Your task to perform on an android device: Go to wifi settings Image 0: 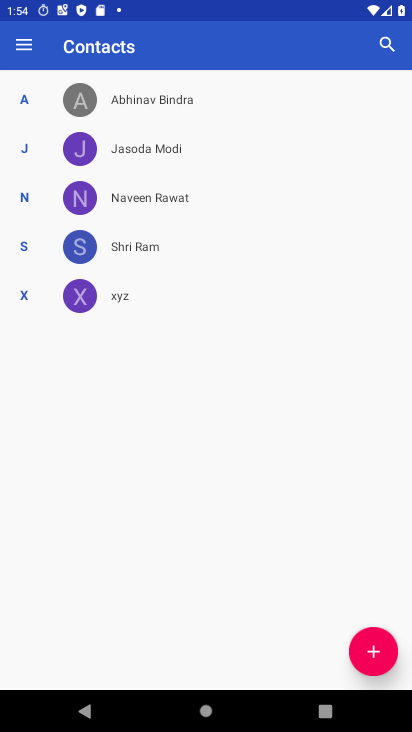
Step 0: press home button
Your task to perform on an android device: Go to wifi settings Image 1: 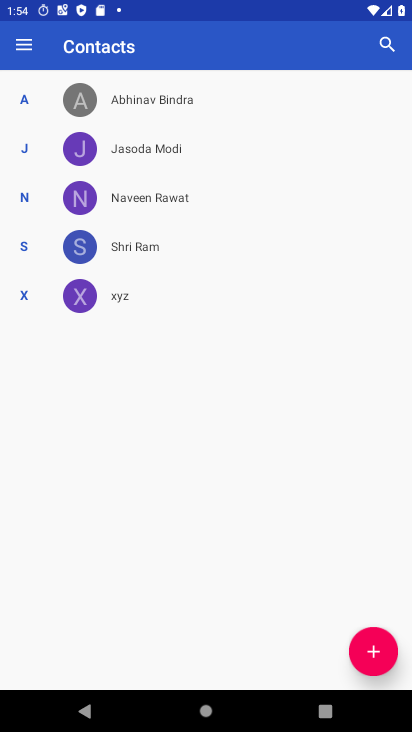
Step 1: press home button
Your task to perform on an android device: Go to wifi settings Image 2: 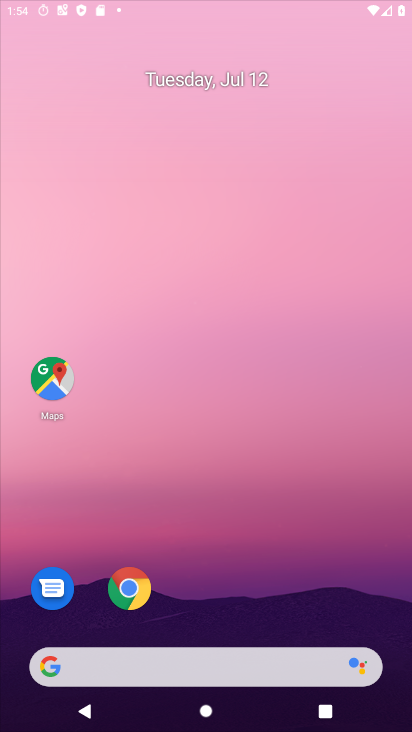
Step 2: drag from (172, 384) to (187, 134)
Your task to perform on an android device: Go to wifi settings Image 3: 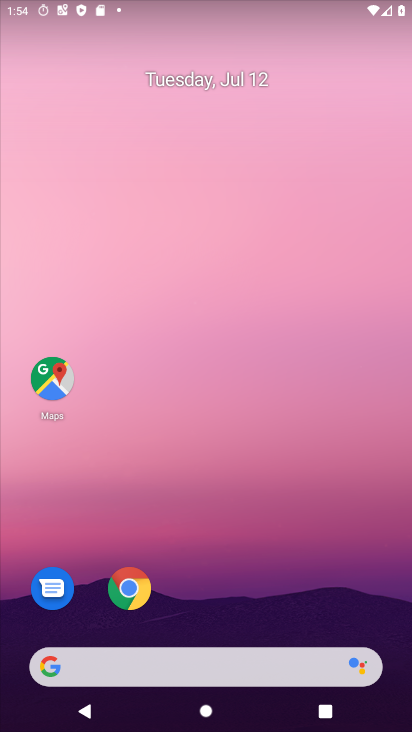
Step 3: drag from (208, 603) to (248, 0)
Your task to perform on an android device: Go to wifi settings Image 4: 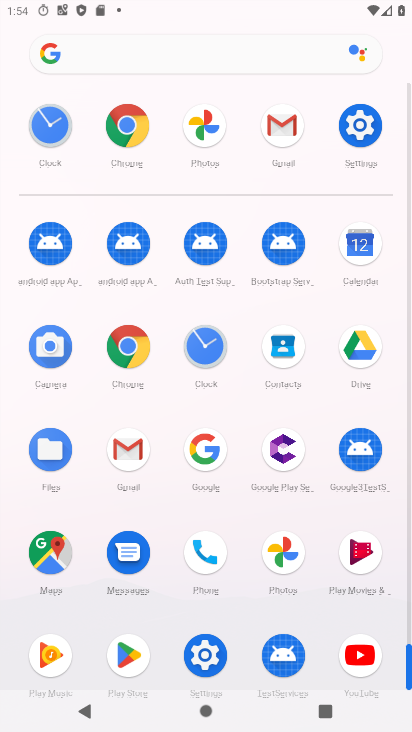
Step 4: click (362, 119)
Your task to perform on an android device: Go to wifi settings Image 5: 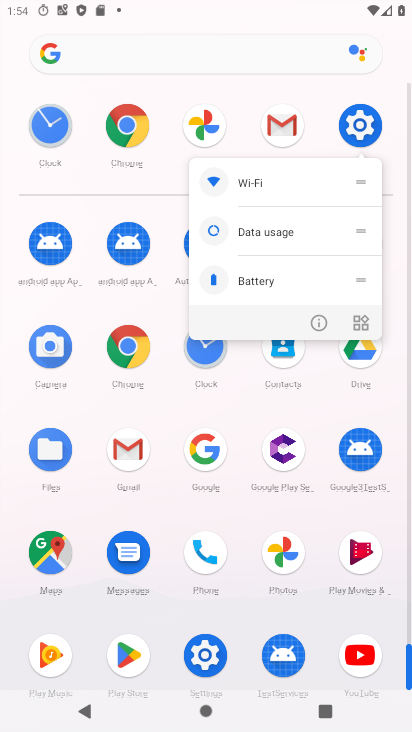
Step 5: click (252, 189)
Your task to perform on an android device: Go to wifi settings Image 6: 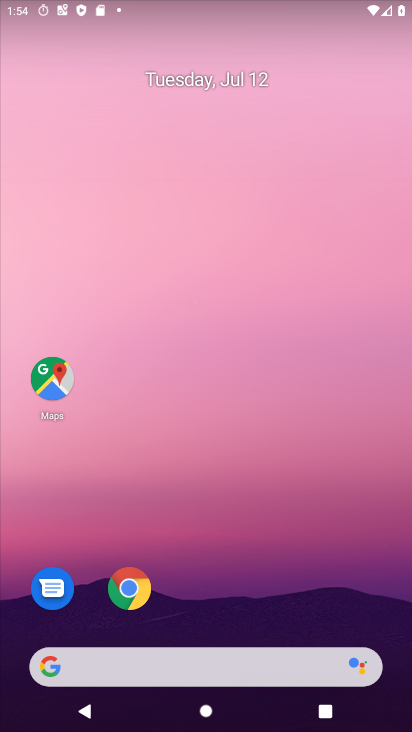
Step 6: drag from (189, 630) to (141, 0)
Your task to perform on an android device: Go to wifi settings Image 7: 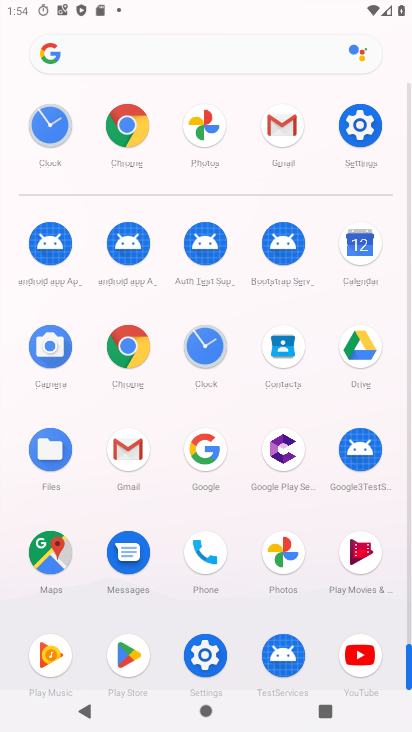
Step 7: click (355, 122)
Your task to perform on an android device: Go to wifi settings Image 8: 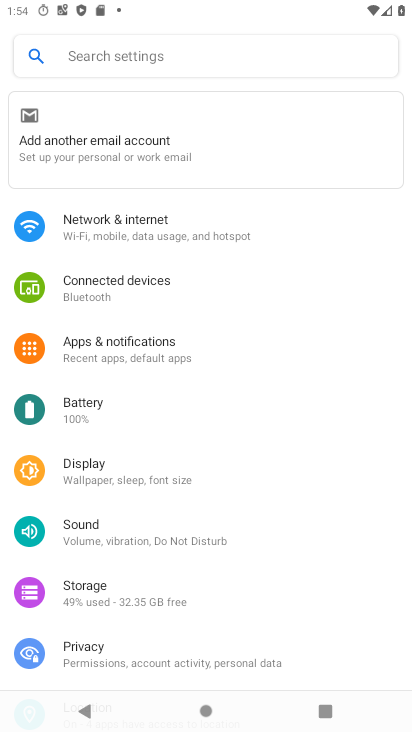
Step 8: click (142, 54)
Your task to perform on an android device: Go to wifi settings Image 9: 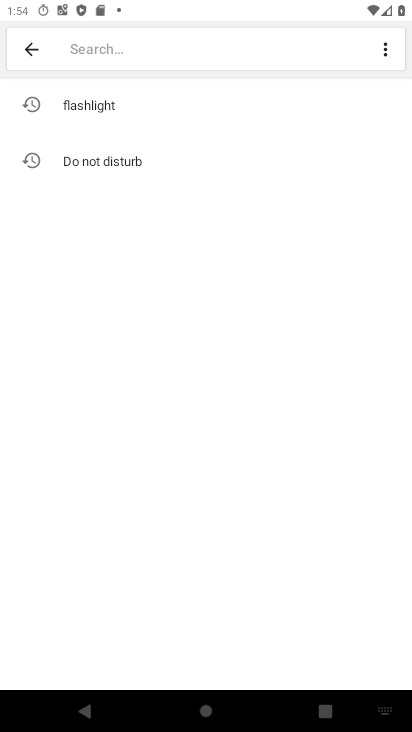
Step 9: click (13, 33)
Your task to perform on an android device: Go to wifi settings Image 10: 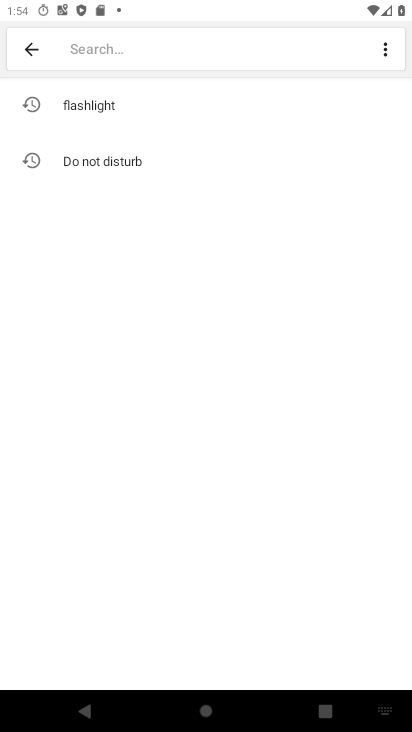
Step 10: click (32, 46)
Your task to perform on an android device: Go to wifi settings Image 11: 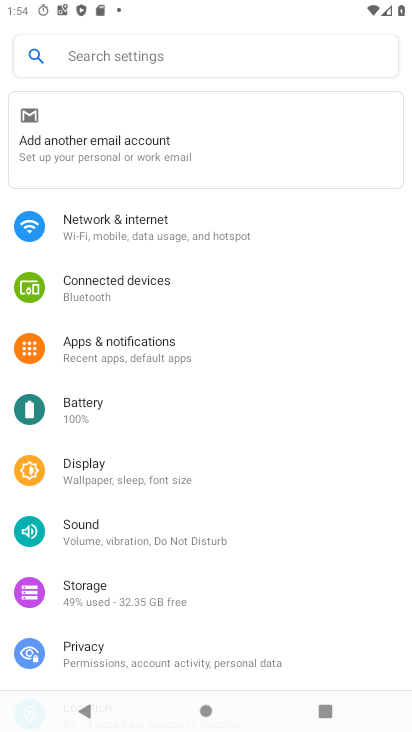
Step 11: click (139, 235)
Your task to perform on an android device: Go to wifi settings Image 12: 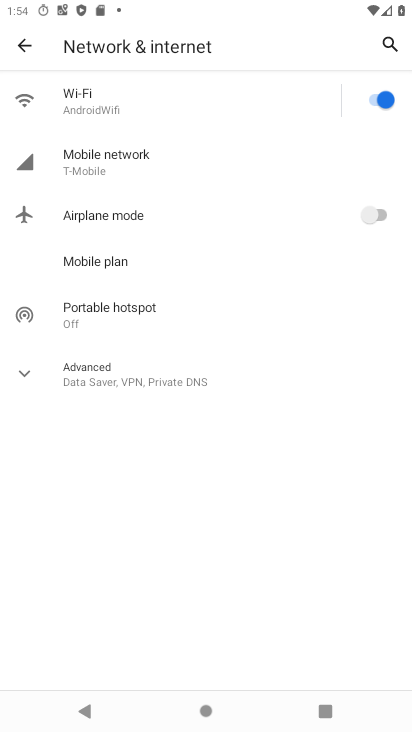
Step 12: click (136, 109)
Your task to perform on an android device: Go to wifi settings Image 13: 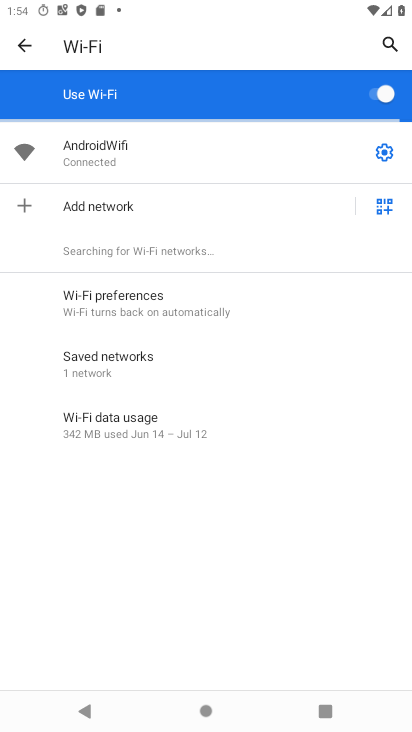
Step 13: click (384, 155)
Your task to perform on an android device: Go to wifi settings Image 14: 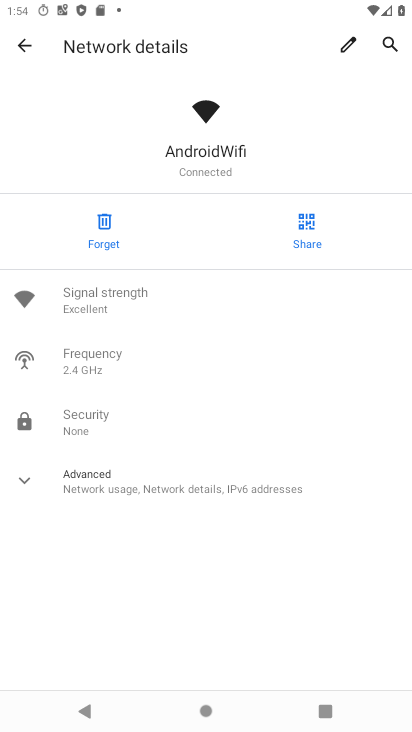
Step 14: task complete